Your task to perform on an android device: Go to settings Image 0: 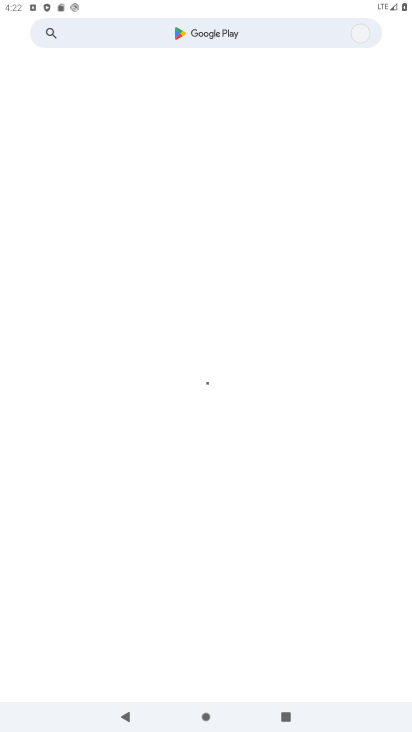
Step 0: drag from (193, 11) to (72, 537)
Your task to perform on an android device: Go to settings Image 1: 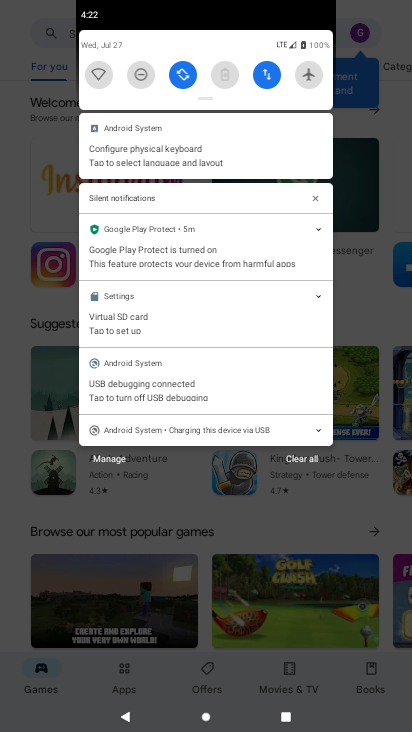
Step 1: drag from (233, 53) to (165, 536)
Your task to perform on an android device: Go to settings Image 2: 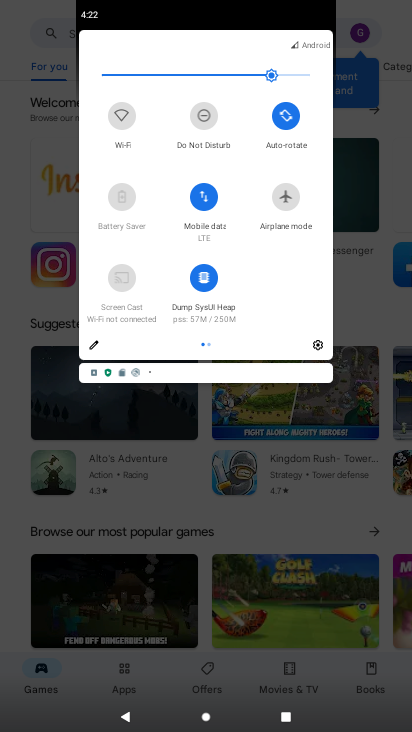
Step 2: click (321, 341)
Your task to perform on an android device: Go to settings Image 3: 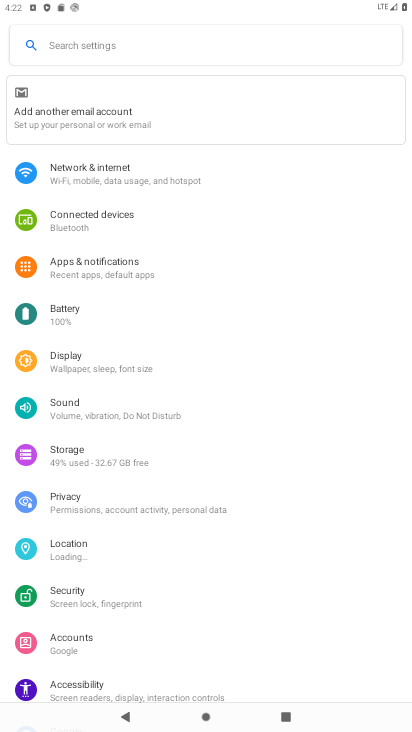
Step 3: task complete